Your task to perform on an android device: Go to Maps Image 0: 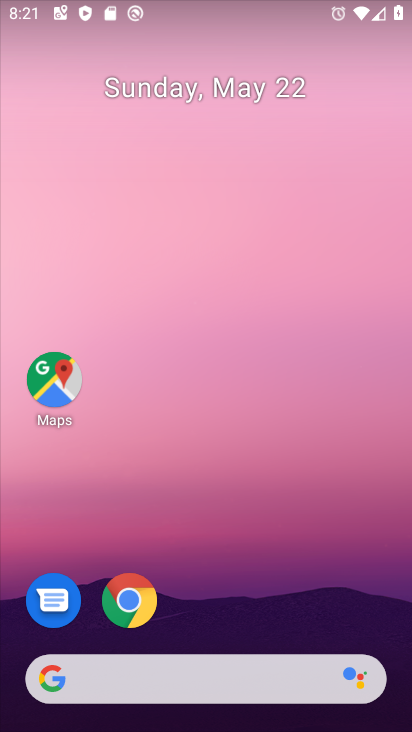
Step 0: drag from (300, 631) to (330, 227)
Your task to perform on an android device: Go to Maps Image 1: 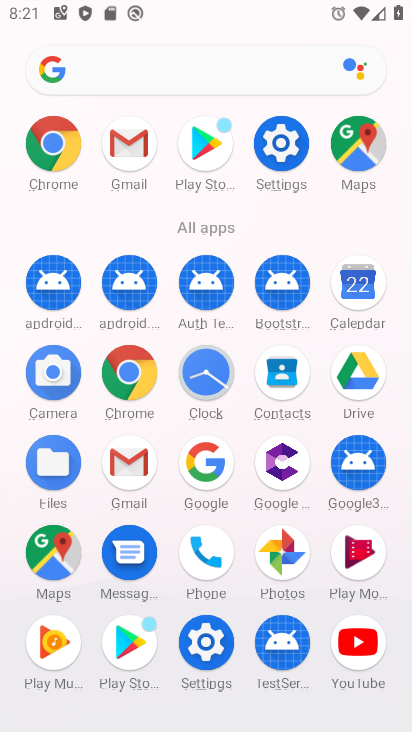
Step 1: click (55, 557)
Your task to perform on an android device: Go to Maps Image 2: 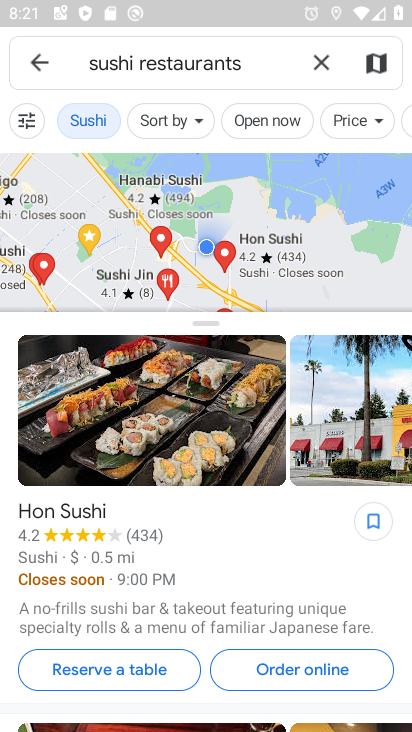
Step 2: task complete